Your task to perform on an android device: Search for the best rated desk chair on Article.com Image 0: 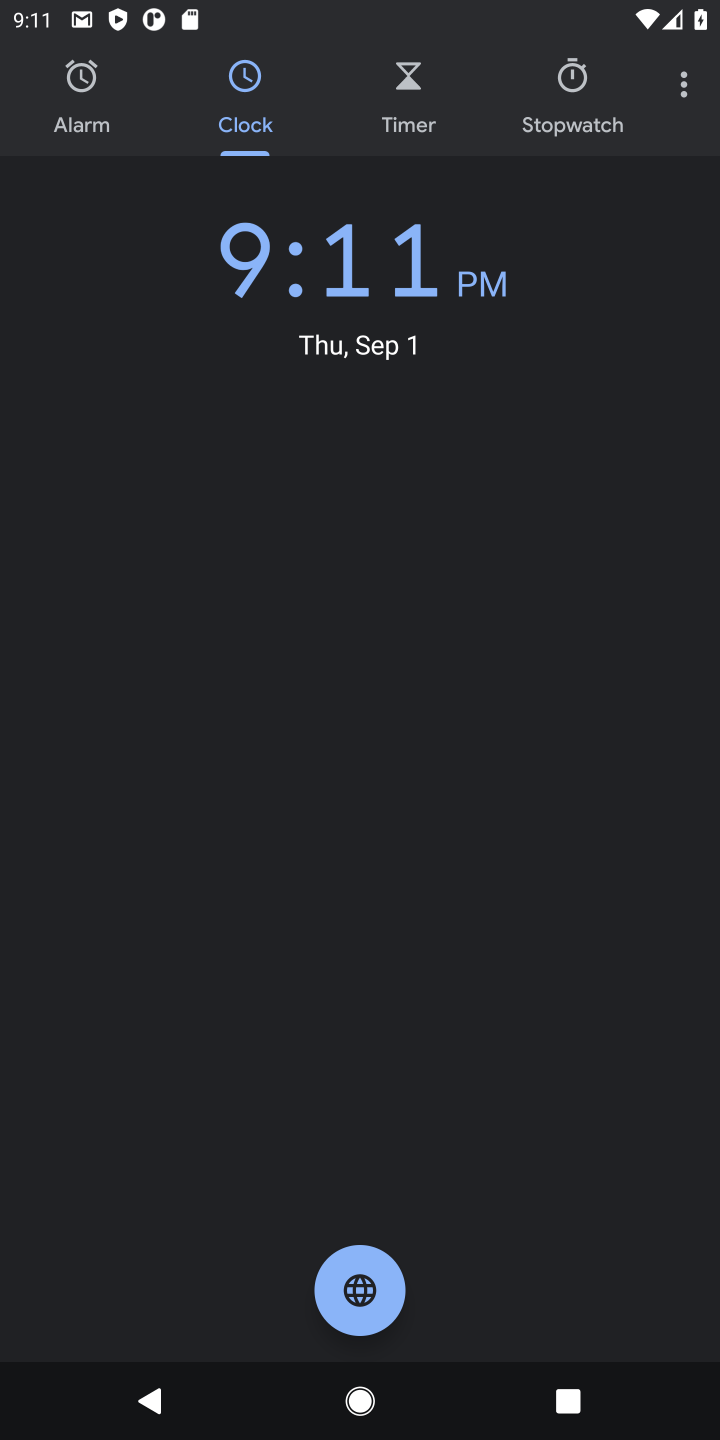
Step 0: press home button
Your task to perform on an android device: Search for the best rated desk chair on Article.com Image 1: 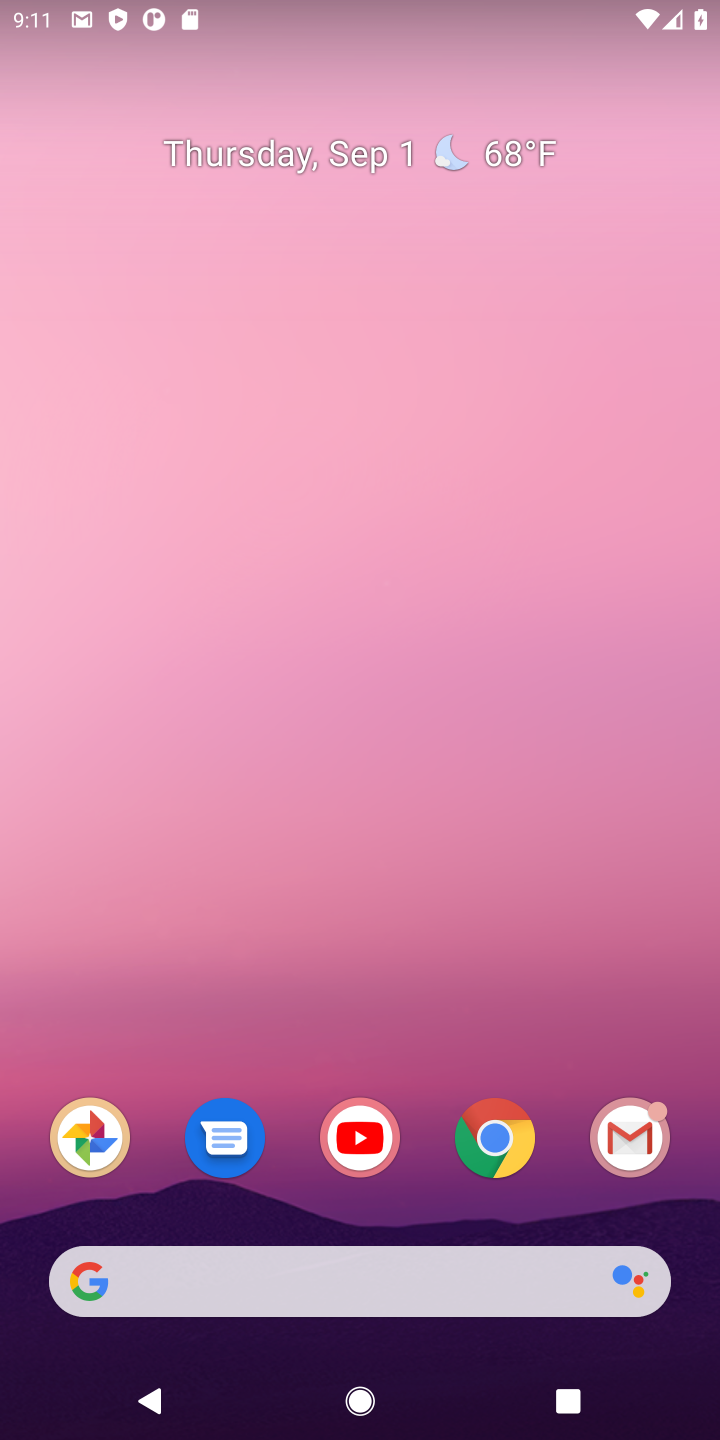
Step 1: click (494, 1128)
Your task to perform on an android device: Search for the best rated desk chair on Article.com Image 2: 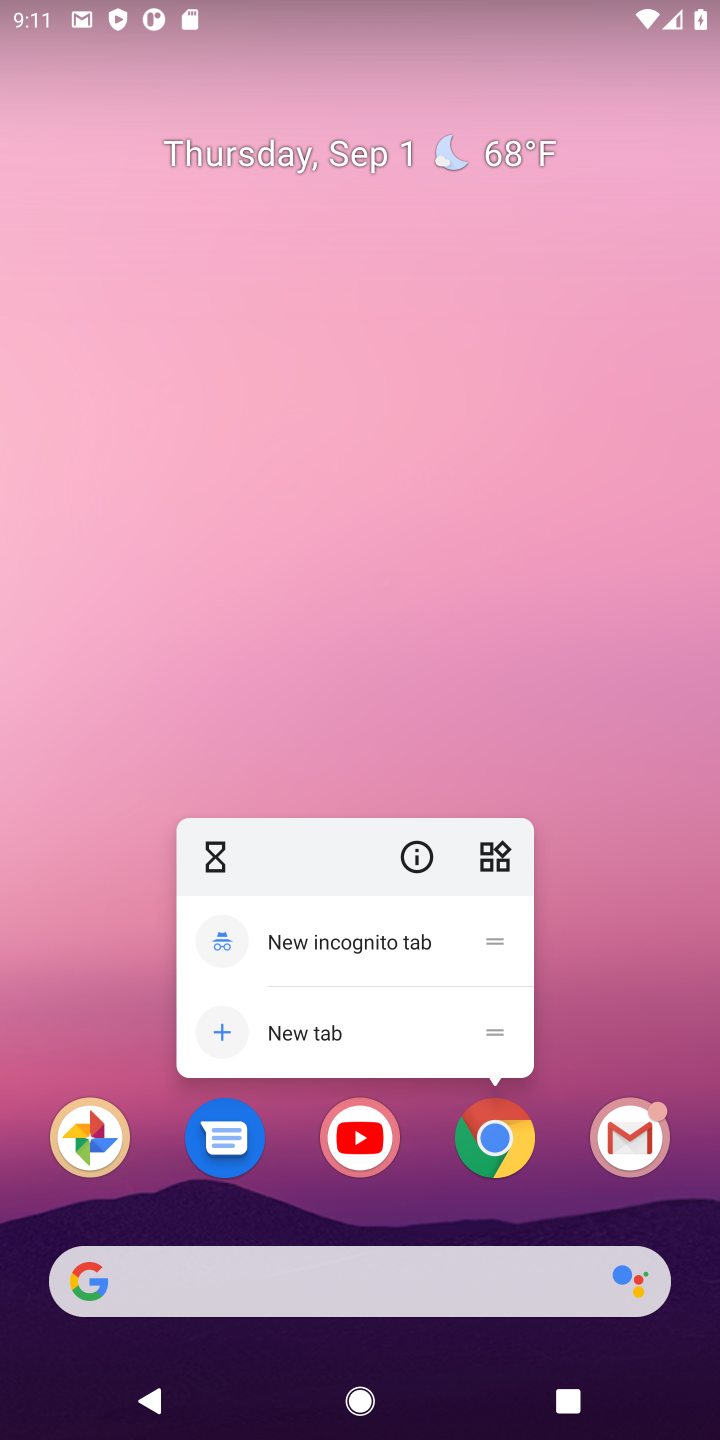
Step 2: click (374, 1050)
Your task to perform on an android device: Search for the best rated desk chair on Article.com Image 3: 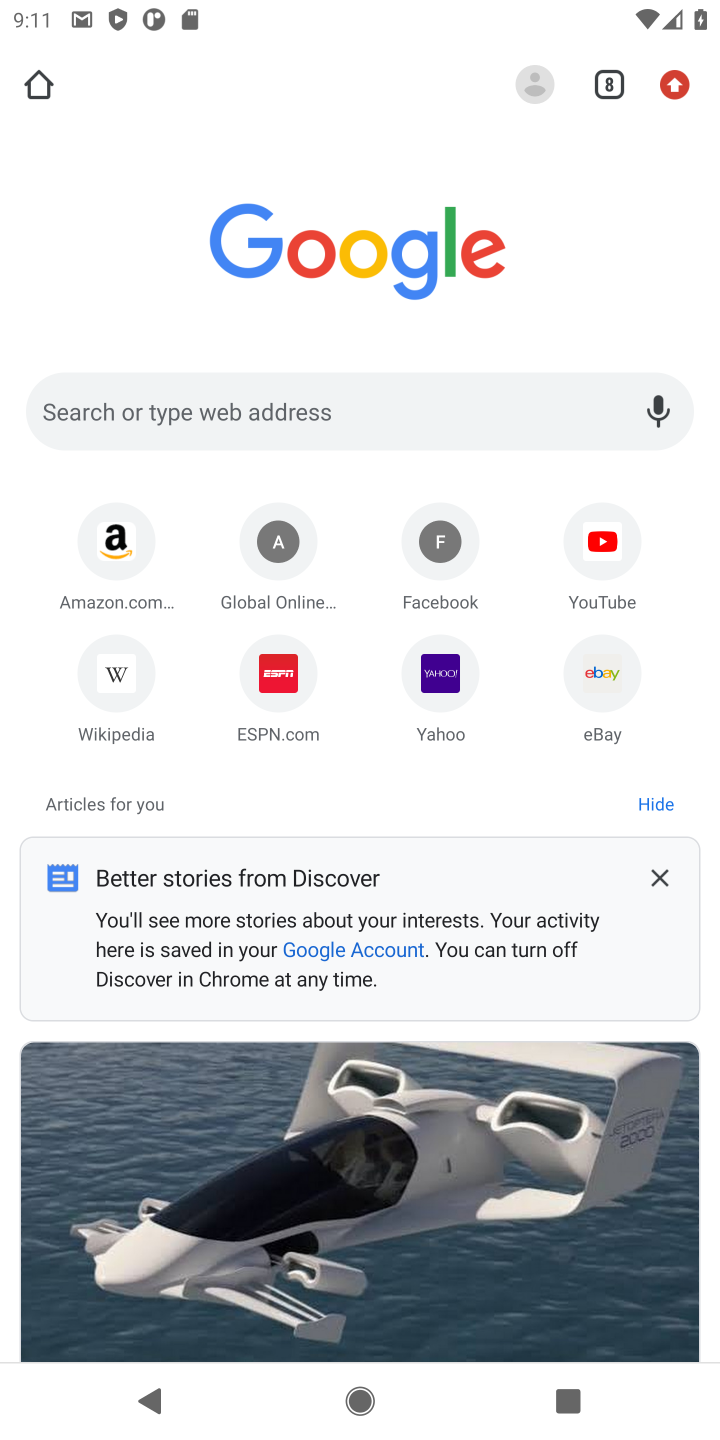
Step 3: click (289, 414)
Your task to perform on an android device: Search for the best rated desk chair on Article.com Image 4: 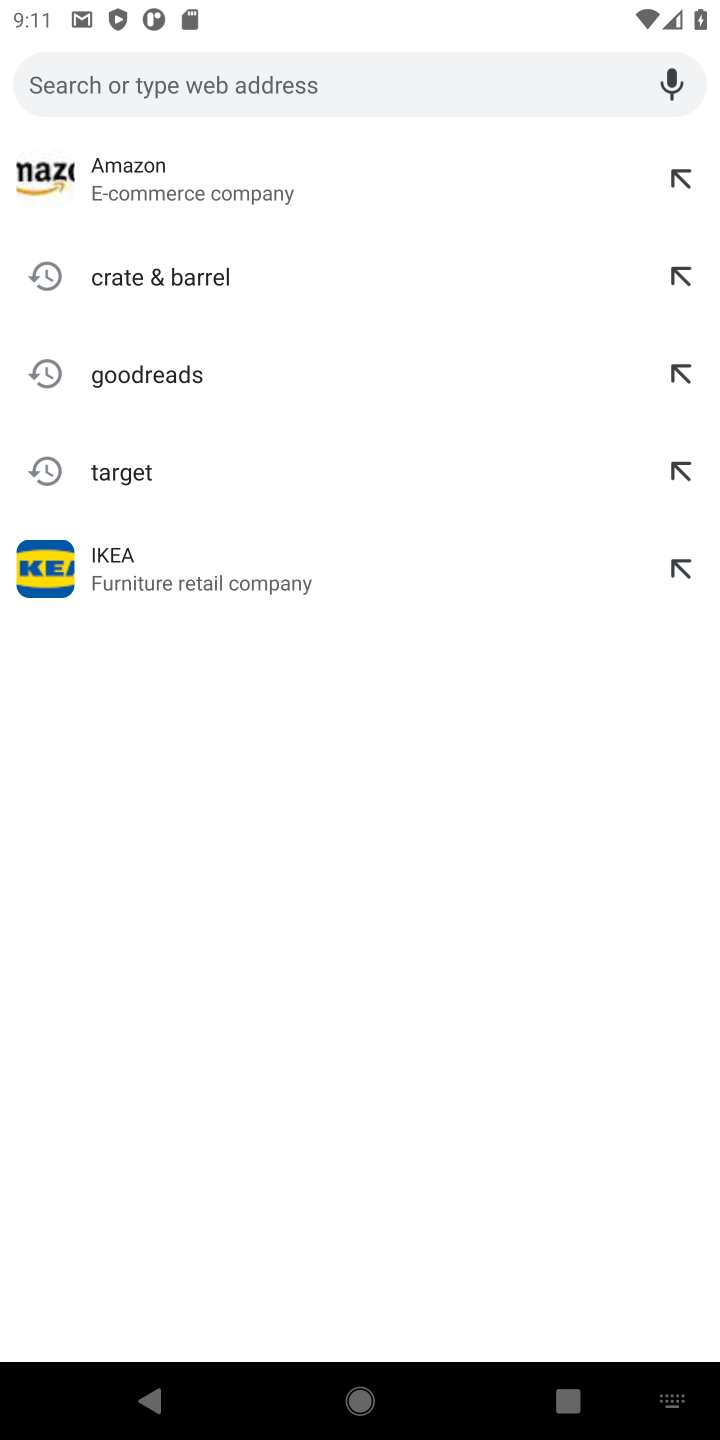
Step 4: type "Article.com"
Your task to perform on an android device: Search for the best rated desk chair on Article.com Image 5: 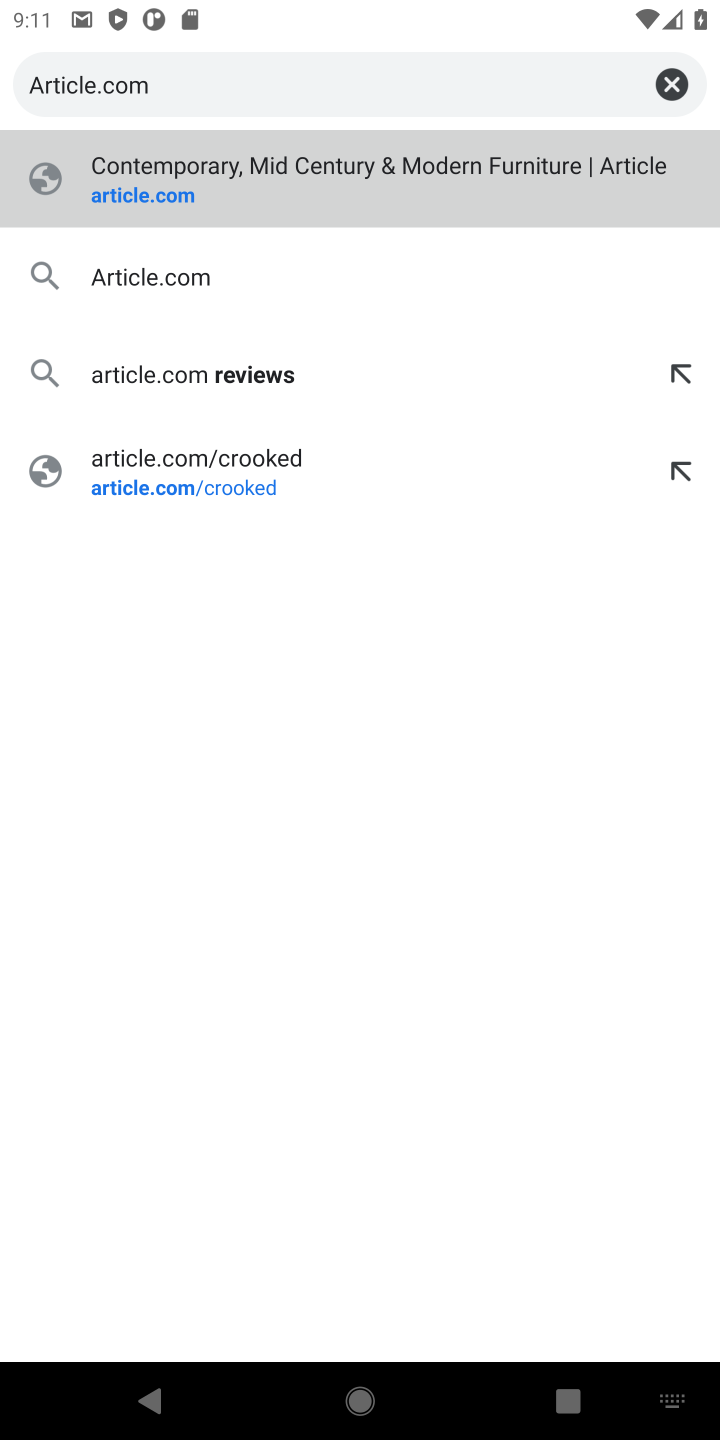
Step 5: click (393, 165)
Your task to perform on an android device: Search for the best rated desk chair on Article.com Image 6: 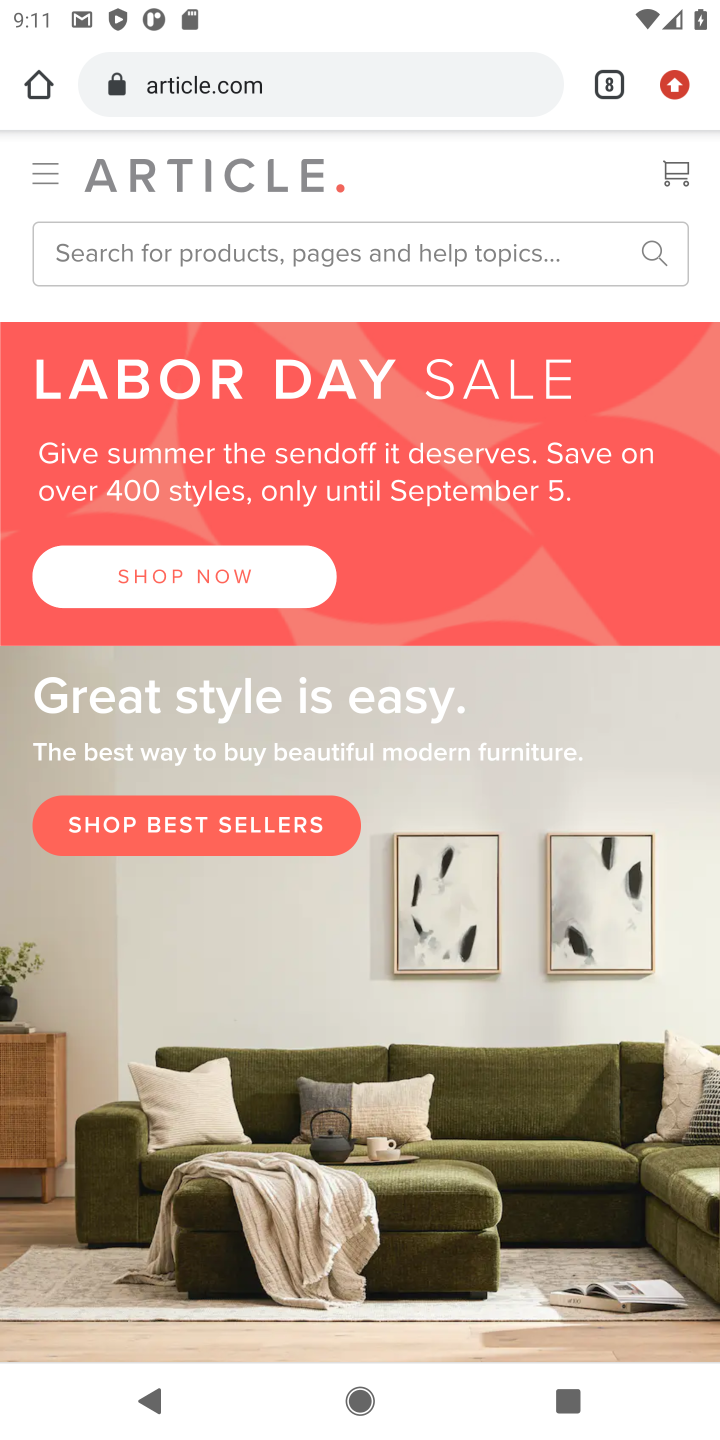
Step 6: click (579, 255)
Your task to perform on an android device: Search for the best rated desk chair on Article.com Image 7: 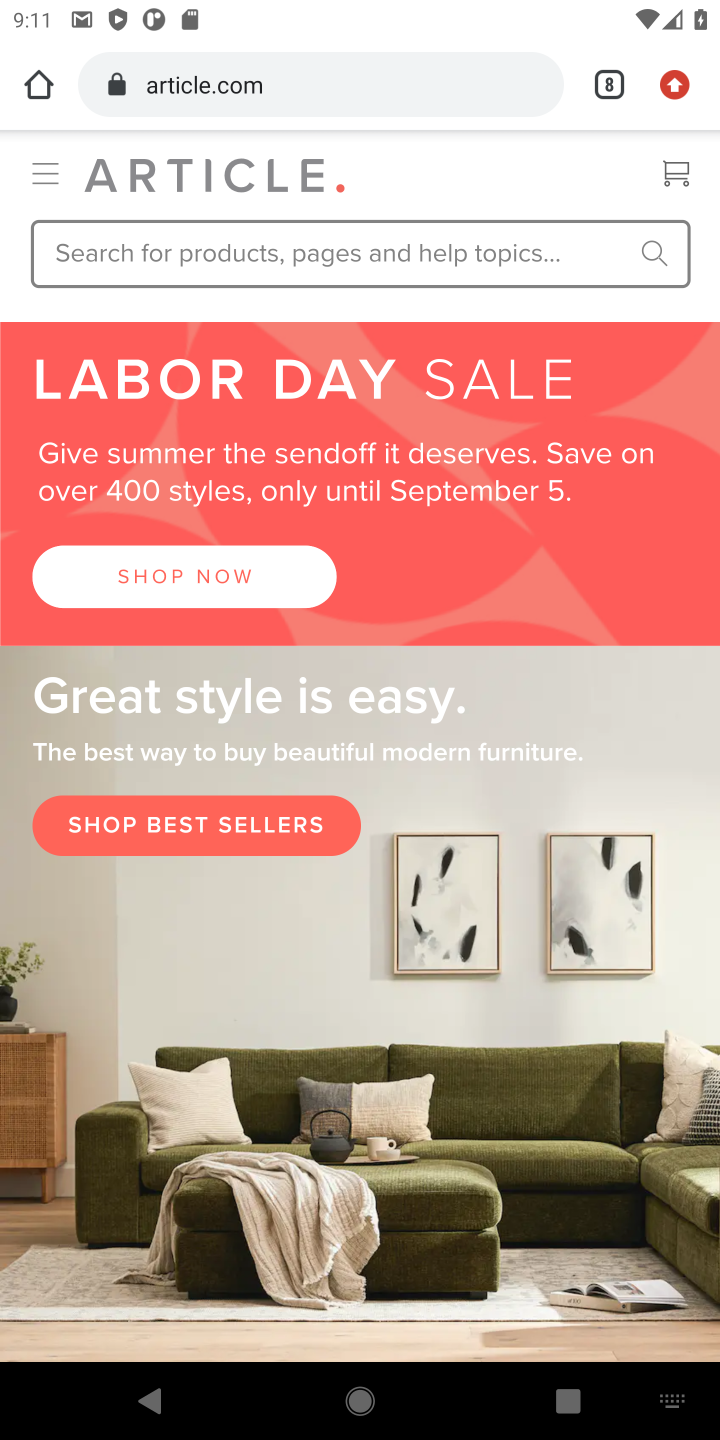
Step 7: click (463, 256)
Your task to perform on an android device: Search for the best rated desk chair on Article.com Image 8: 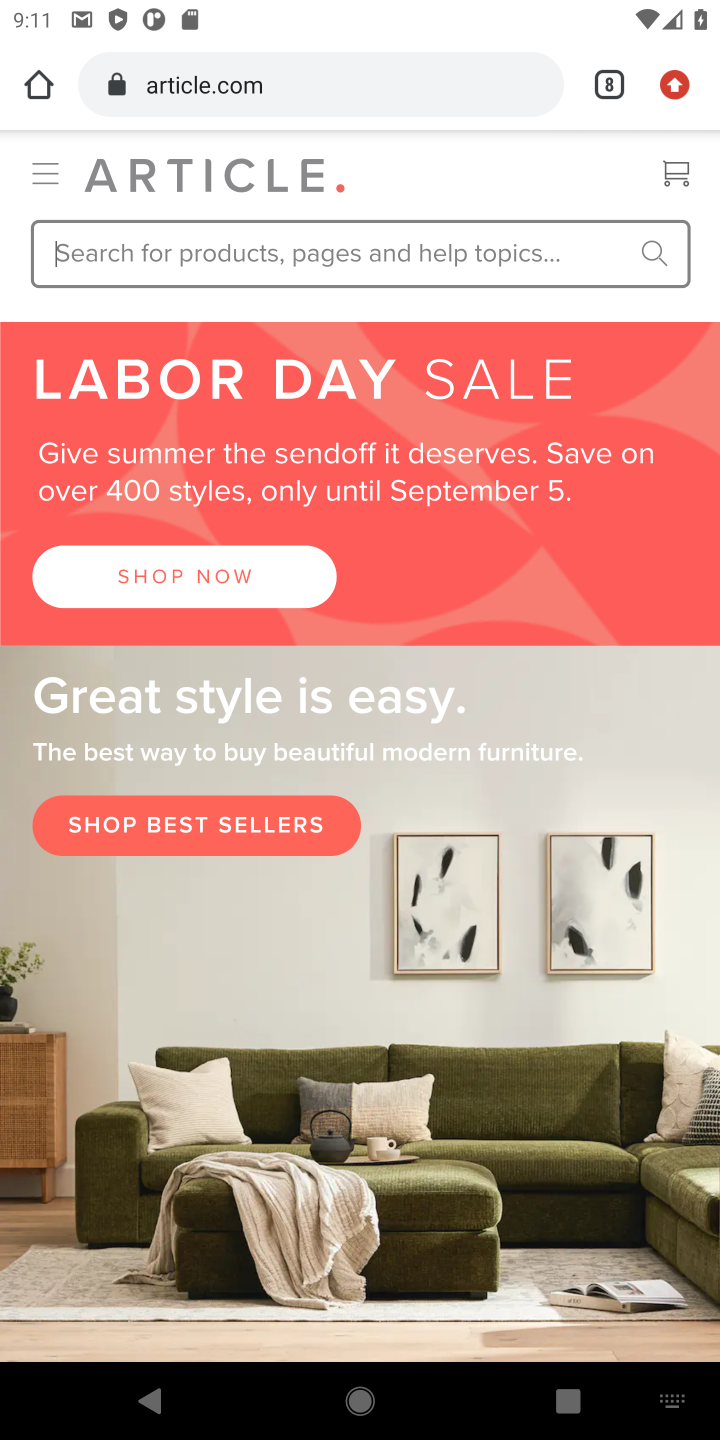
Step 8: type "best rated desk chair"
Your task to perform on an android device: Search for the best rated desk chair on Article.com Image 9: 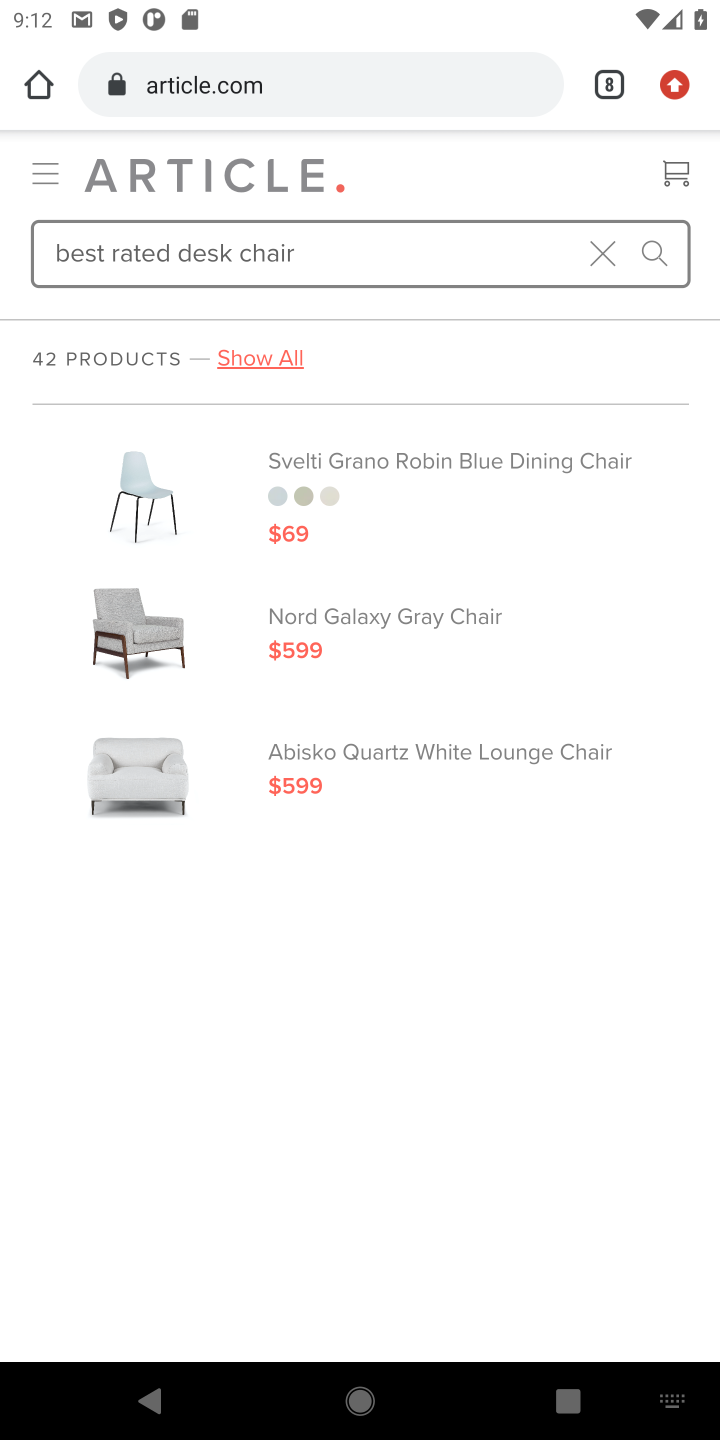
Step 9: task complete